Your task to perform on an android device: Open Youtube and go to the subscriptions tab Image 0: 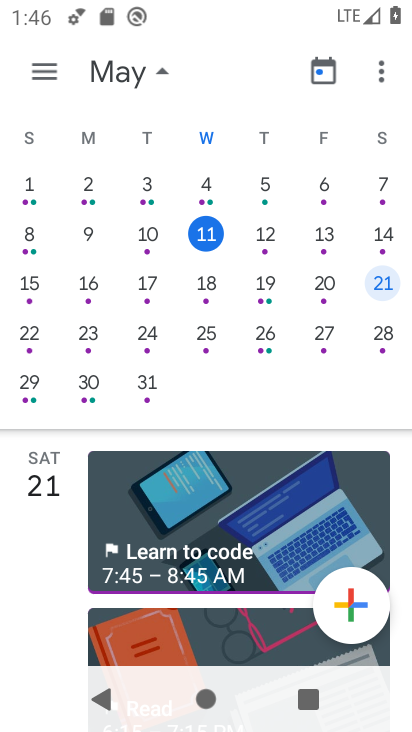
Step 0: press home button
Your task to perform on an android device: Open Youtube and go to the subscriptions tab Image 1: 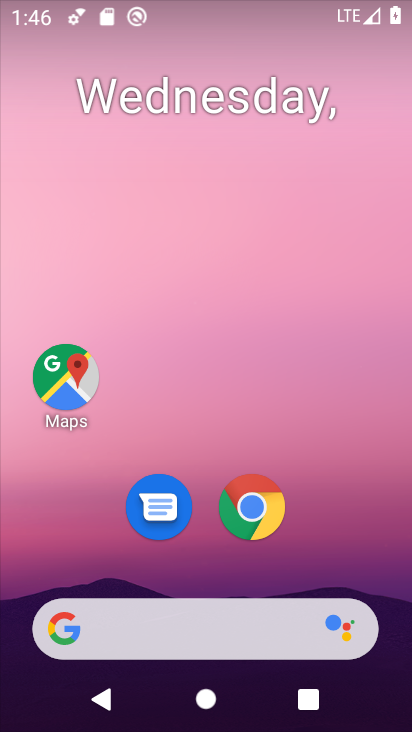
Step 1: drag from (307, 551) to (386, 0)
Your task to perform on an android device: Open Youtube and go to the subscriptions tab Image 2: 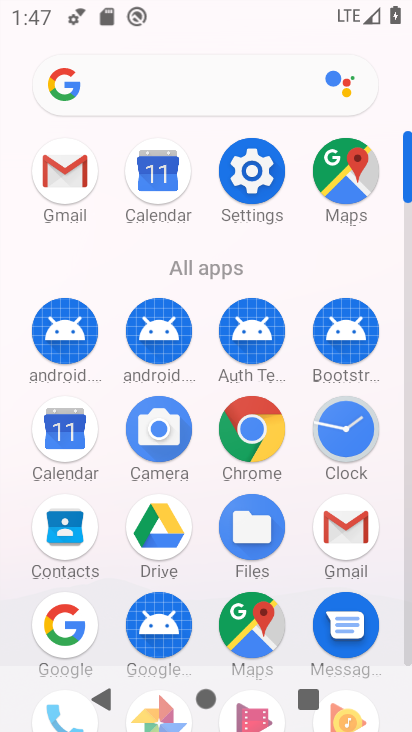
Step 2: drag from (215, 566) to (251, 283)
Your task to perform on an android device: Open Youtube and go to the subscriptions tab Image 3: 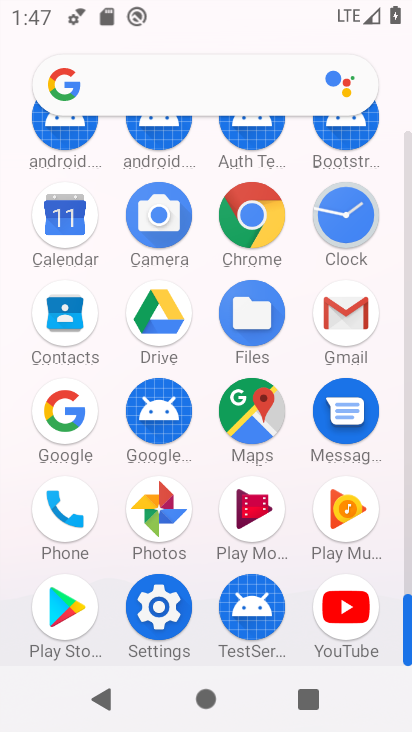
Step 3: click (353, 612)
Your task to perform on an android device: Open Youtube and go to the subscriptions tab Image 4: 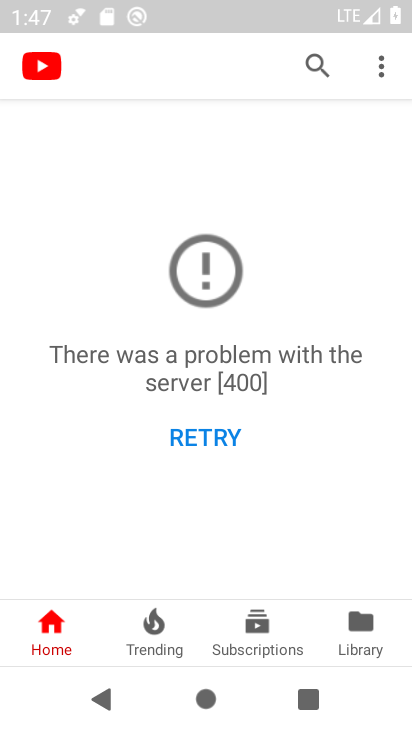
Step 4: click (225, 628)
Your task to perform on an android device: Open Youtube and go to the subscriptions tab Image 5: 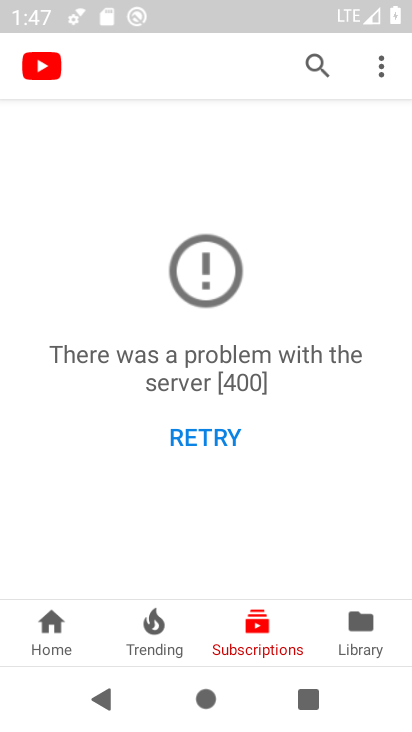
Step 5: click (214, 426)
Your task to perform on an android device: Open Youtube and go to the subscriptions tab Image 6: 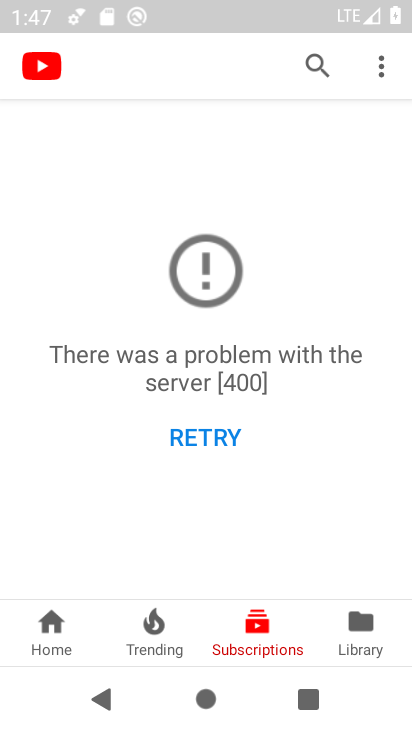
Step 6: task complete